Your task to perform on an android device: turn on notifications settings in the gmail app Image 0: 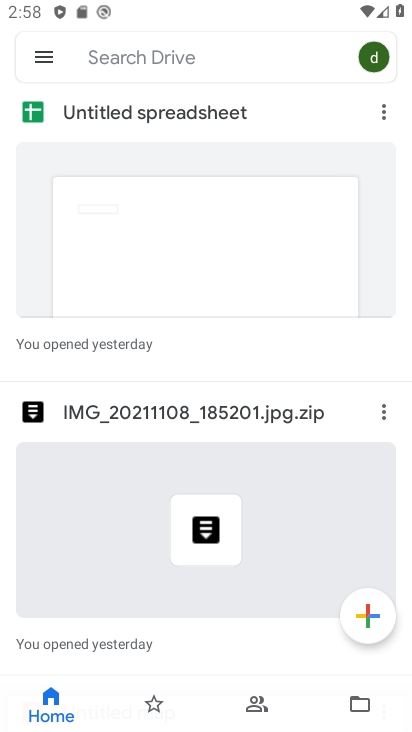
Step 0: press home button
Your task to perform on an android device: turn on notifications settings in the gmail app Image 1: 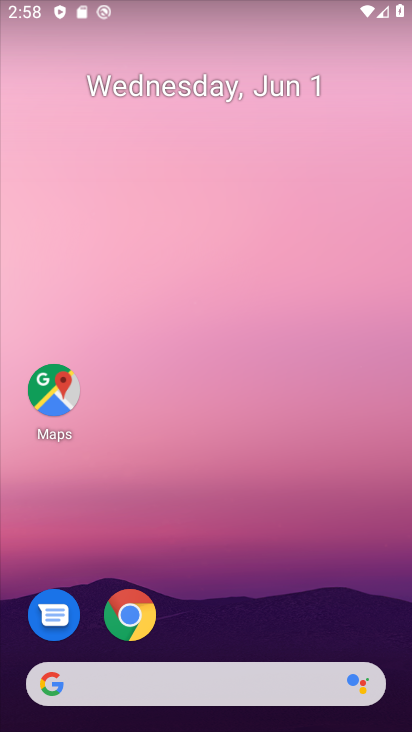
Step 1: drag from (332, 674) to (332, 96)
Your task to perform on an android device: turn on notifications settings in the gmail app Image 2: 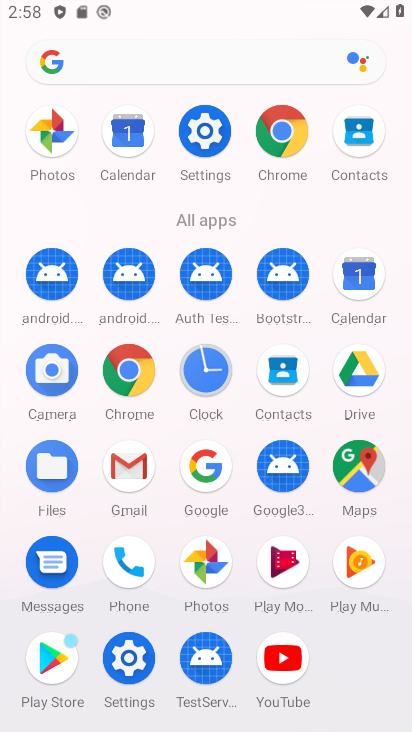
Step 2: click (137, 456)
Your task to perform on an android device: turn on notifications settings in the gmail app Image 3: 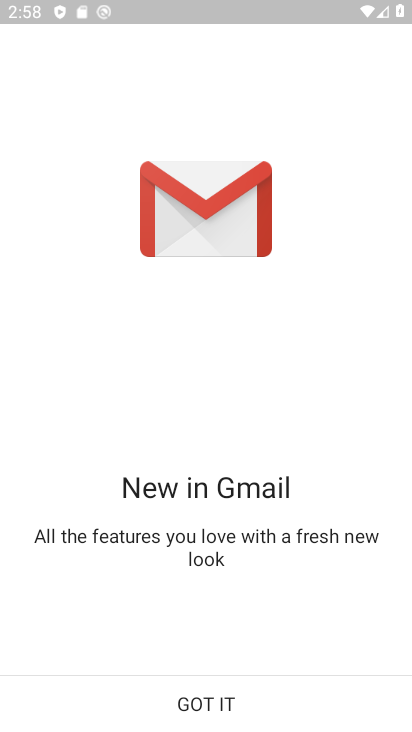
Step 3: click (218, 688)
Your task to perform on an android device: turn on notifications settings in the gmail app Image 4: 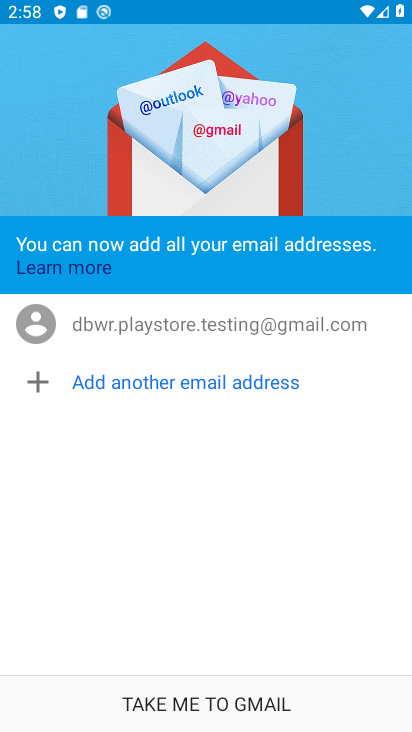
Step 4: click (218, 702)
Your task to perform on an android device: turn on notifications settings in the gmail app Image 5: 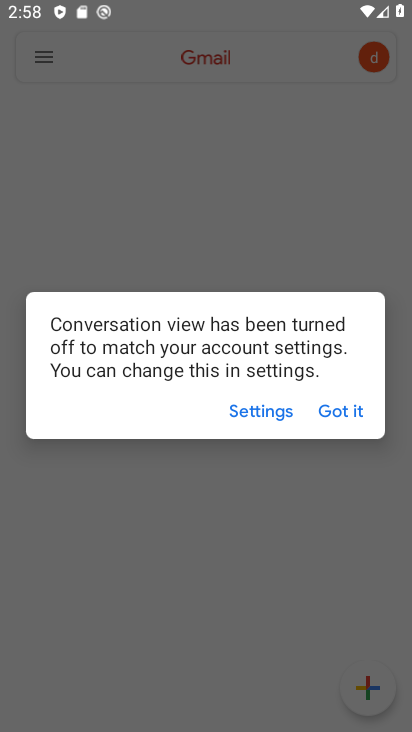
Step 5: click (363, 411)
Your task to perform on an android device: turn on notifications settings in the gmail app Image 6: 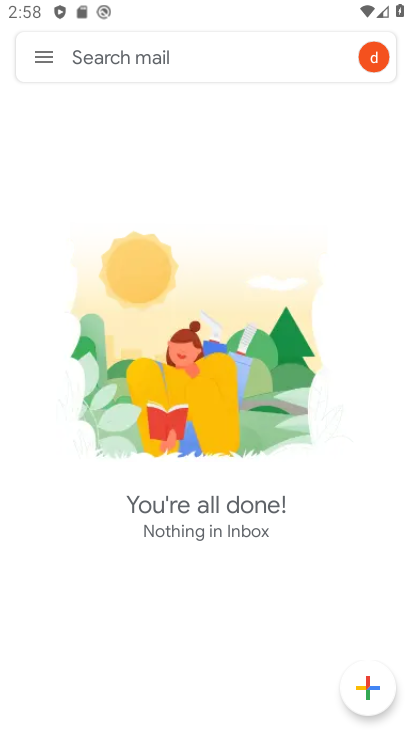
Step 6: click (42, 59)
Your task to perform on an android device: turn on notifications settings in the gmail app Image 7: 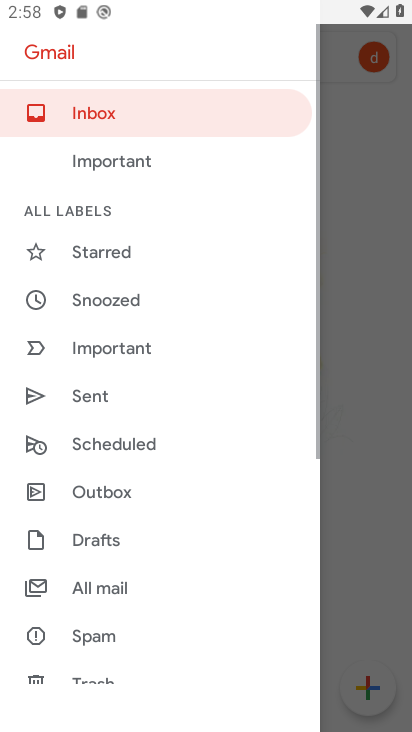
Step 7: drag from (133, 633) to (153, 233)
Your task to perform on an android device: turn on notifications settings in the gmail app Image 8: 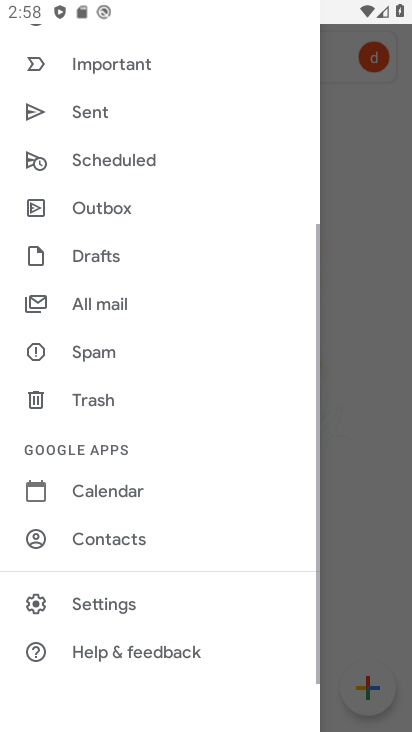
Step 8: drag from (213, 442) to (218, 132)
Your task to perform on an android device: turn on notifications settings in the gmail app Image 9: 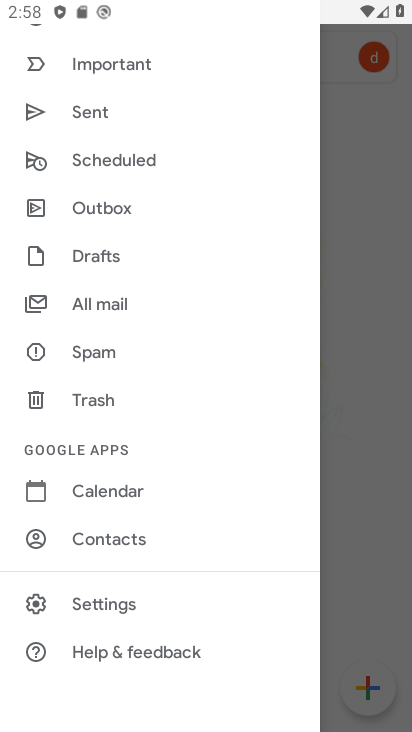
Step 9: click (146, 603)
Your task to perform on an android device: turn on notifications settings in the gmail app Image 10: 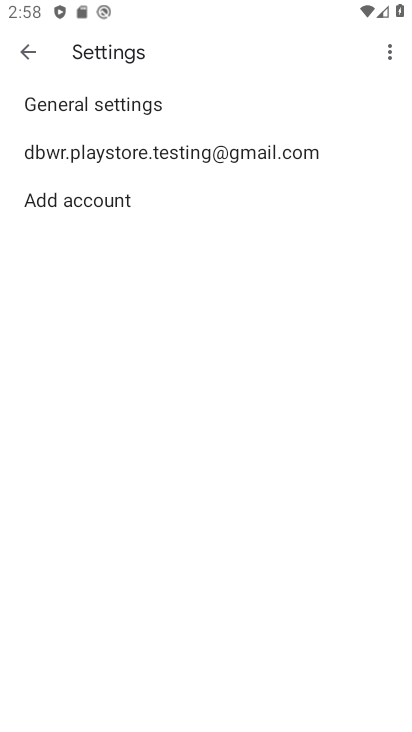
Step 10: click (242, 161)
Your task to perform on an android device: turn on notifications settings in the gmail app Image 11: 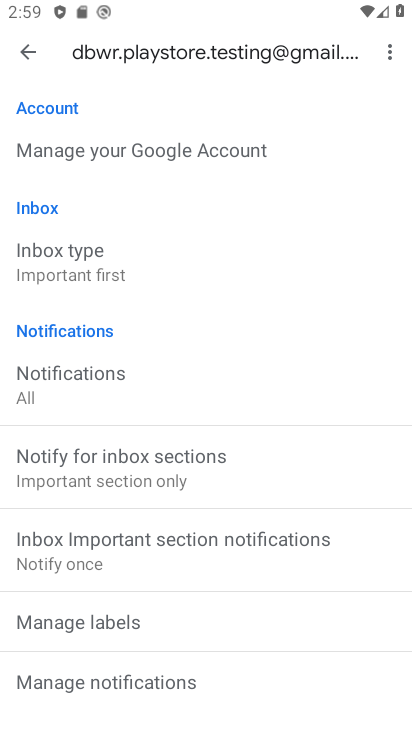
Step 11: click (151, 679)
Your task to perform on an android device: turn on notifications settings in the gmail app Image 12: 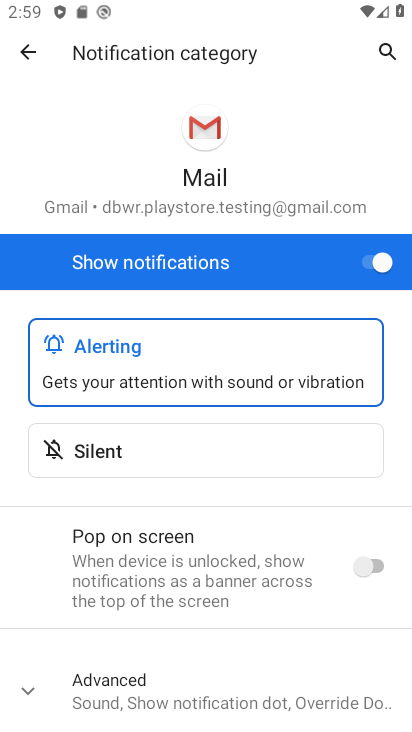
Step 12: task complete